Your task to perform on an android device: check storage Image 0: 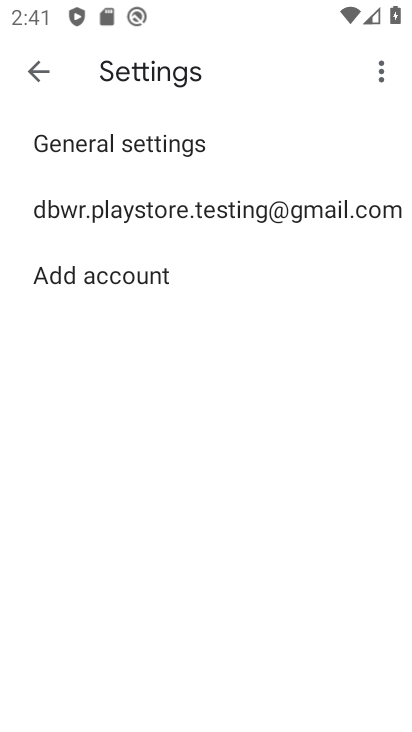
Step 0: press home button
Your task to perform on an android device: check storage Image 1: 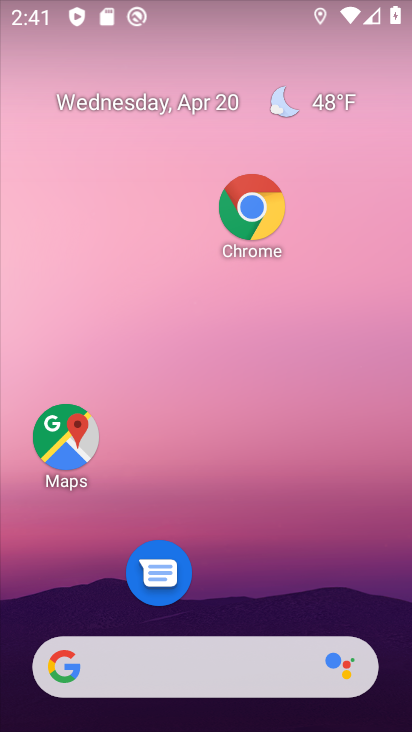
Step 1: drag from (264, 587) to (327, 152)
Your task to perform on an android device: check storage Image 2: 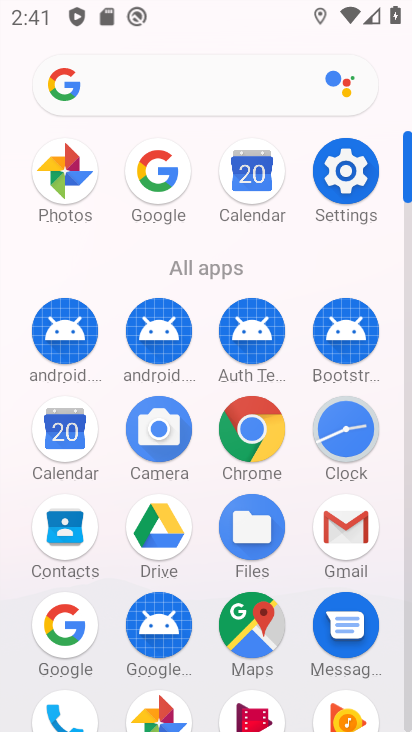
Step 2: click (366, 167)
Your task to perform on an android device: check storage Image 3: 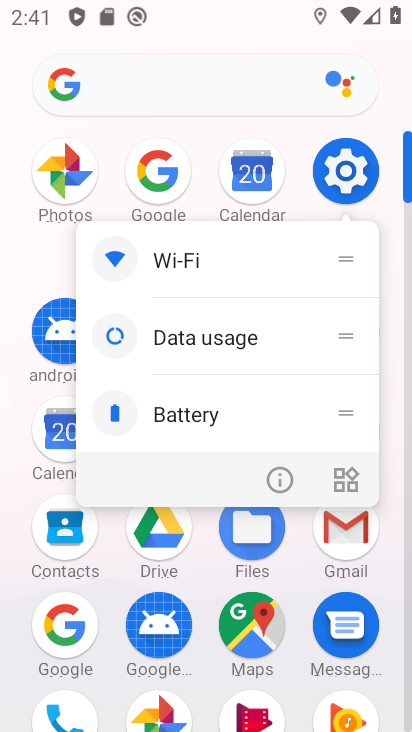
Step 3: click (374, 171)
Your task to perform on an android device: check storage Image 4: 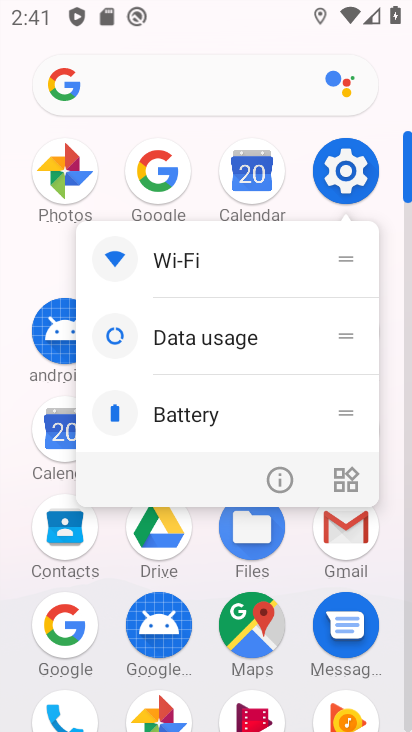
Step 4: click (357, 158)
Your task to perform on an android device: check storage Image 5: 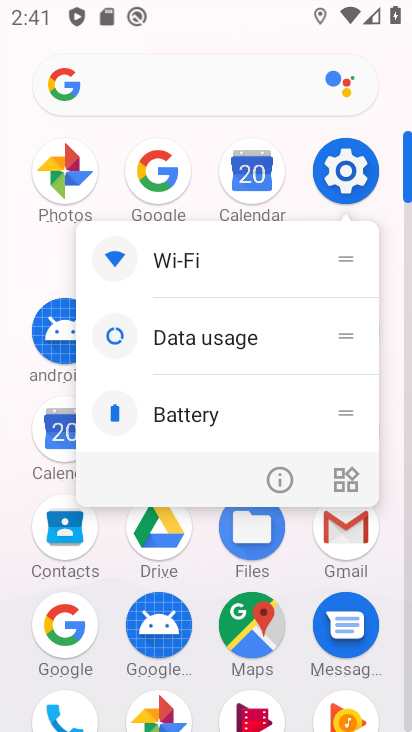
Step 5: click (349, 177)
Your task to perform on an android device: check storage Image 6: 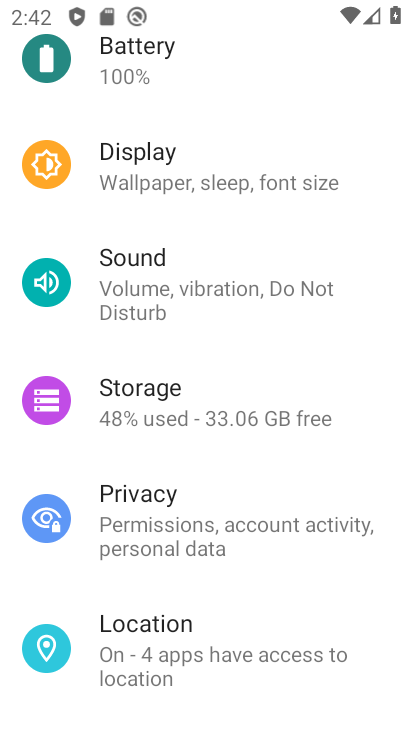
Step 6: click (225, 422)
Your task to perform on an android device: check storage Image 7: 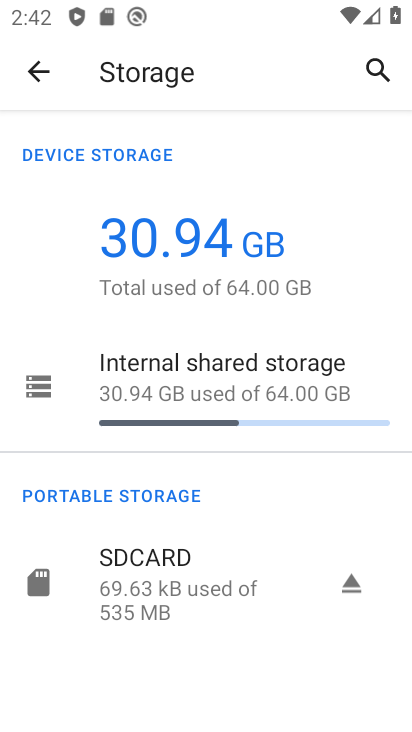
Step 7: click (232, 401)
Your task to perform on an android device: check storage Image 8: 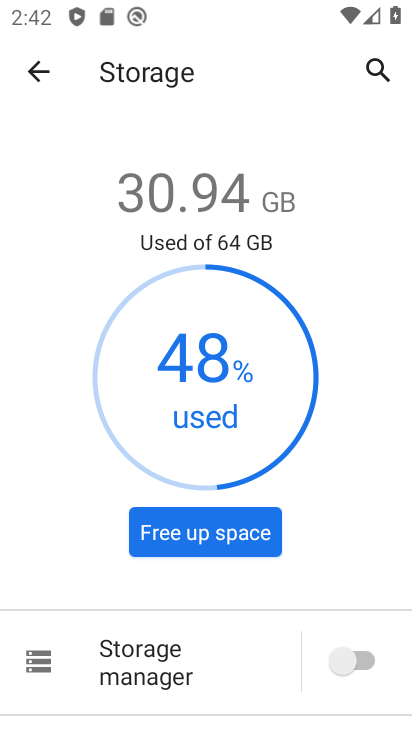
Step 8: task complete